Your task to perform on an android device: turn off translation in the chrome app Image 0: 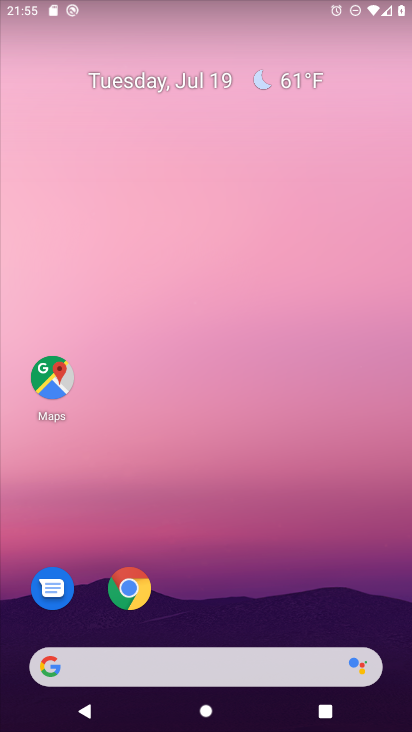
Step 0: click (129, 584)
Your task to perform on an android device: turn off translation in the chrome app Image 1: 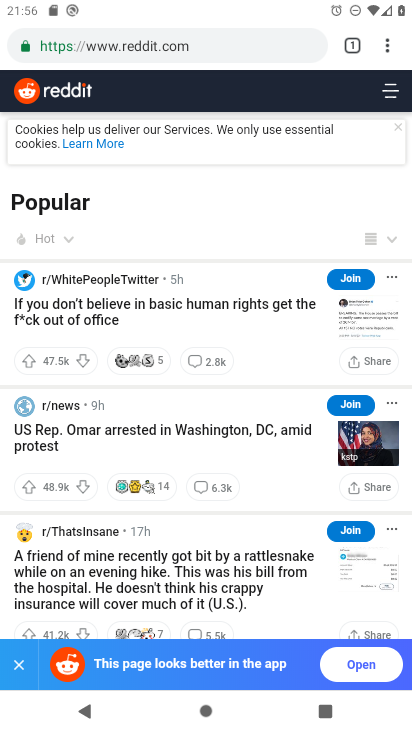
Step 1: click (388, 42)
Your task to perform on an android device: turn off translation in the chrome app Image 2: 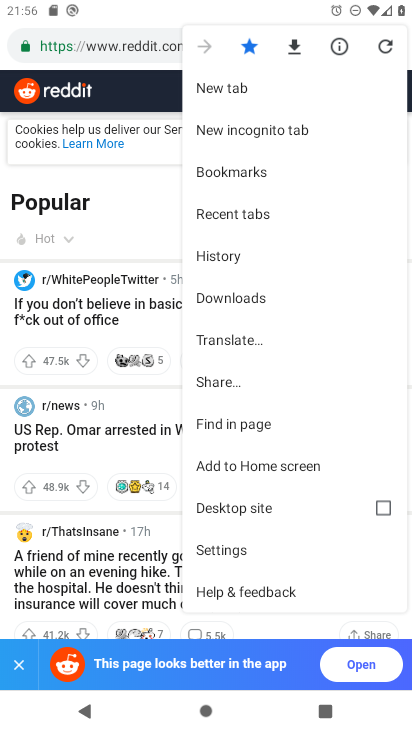
Step 2: click (243, 542)
Your task to perform on an android device: turn off translation in the chrome app Image 3: 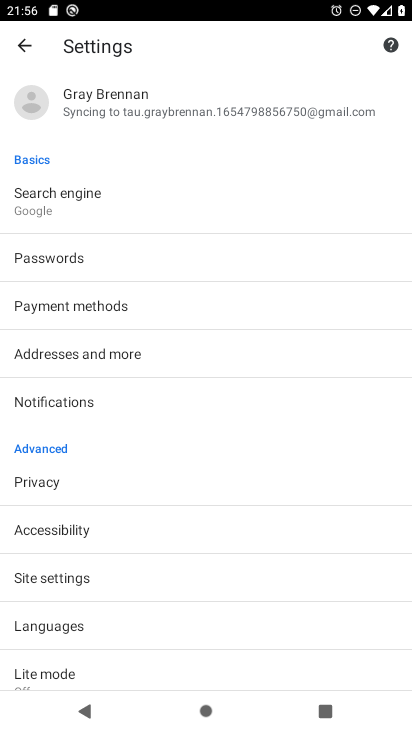
Step 3: click (90, 620)
Your task to perform on an android device: turn off translation in the chrome app Image 4: 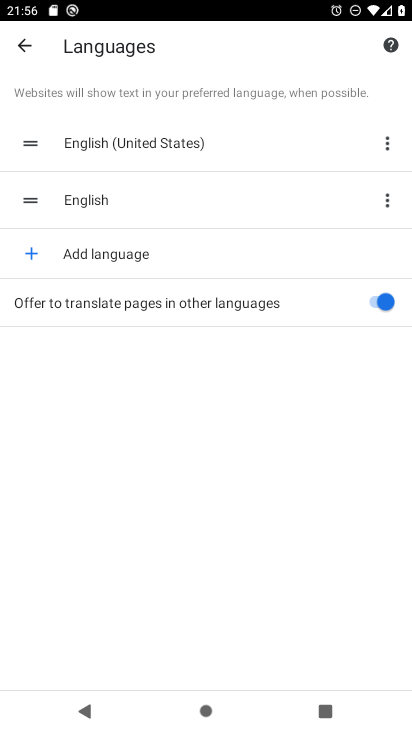
Step 4: click (373, 301)
Your task to perform on an android device: turn off translation in the chrome app Image 5: 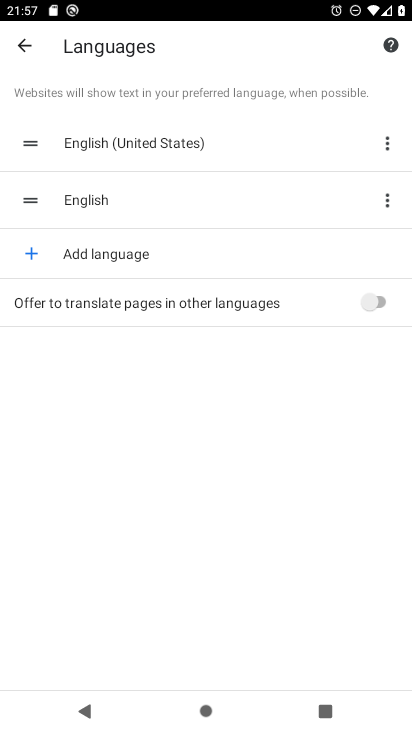
Step 5: task complete